Your task to perform on an android device: change text size in settings app Image 0: 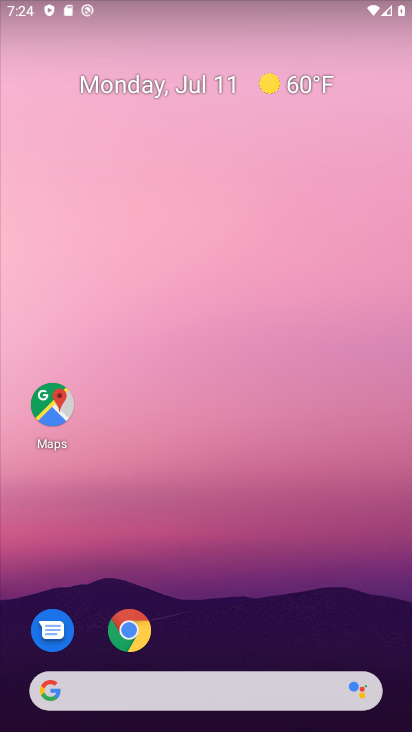
Step 0: drag from (284, 622) to (296, 171)
Your task to perform on an android device: change text size in settings app Image 1: 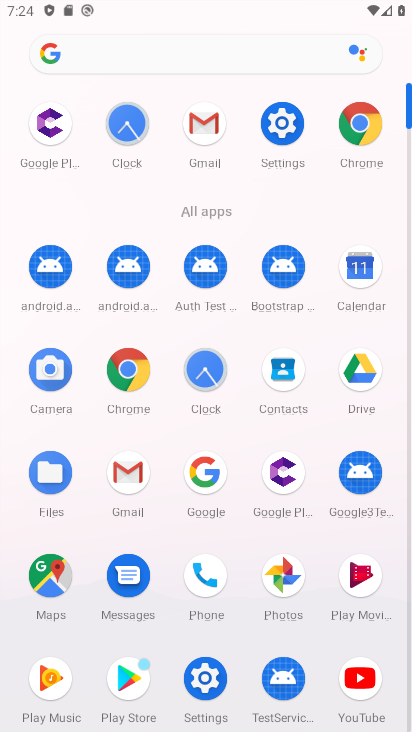
Step 1: click (204, 676)
Your task to perform on an android device: change text size in settings app Image 2: 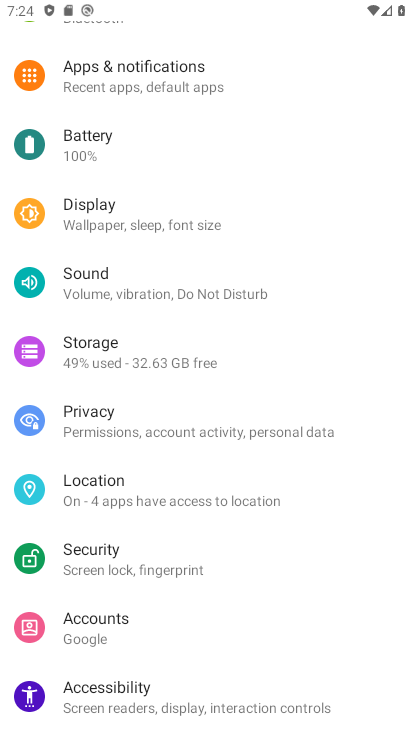
Step 2: click (114, 208)
Your task to perform on an android device: change text size in settings app Image 3: 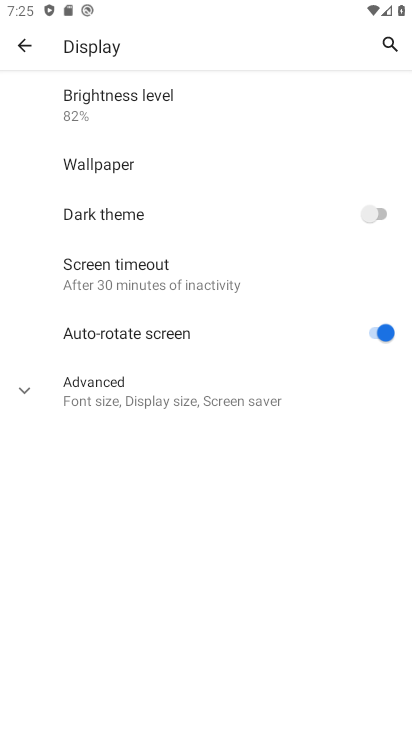
Step 3: click (71, 395)
Your task to perform on an android device: change text size in settings app Image 4: 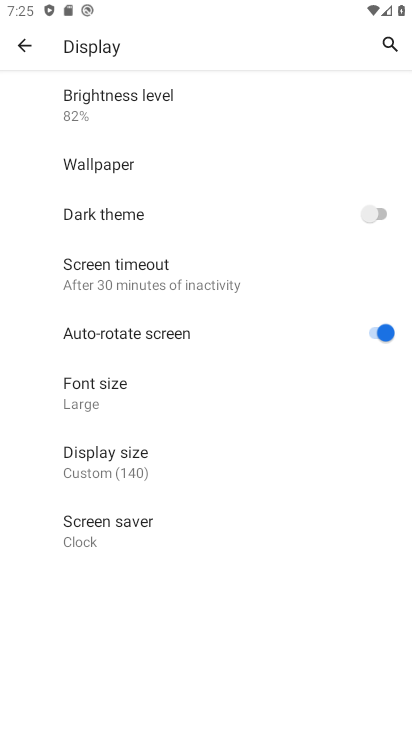
Step 4: click (81, 395)
Your task to perform on an android device: change text size in settings app Image 5: 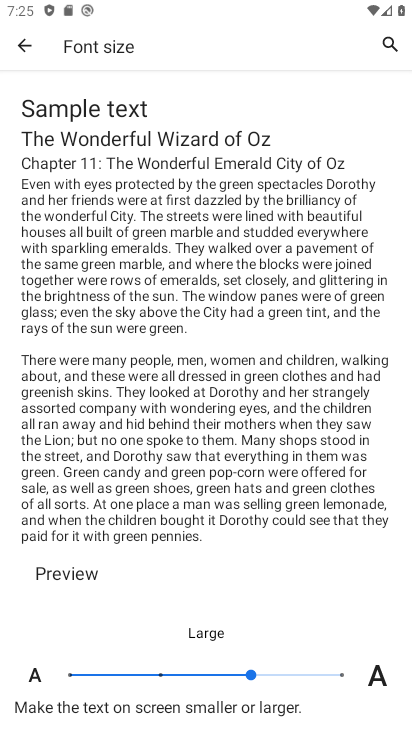
Step 5: click (160, 679)
Your task to perform on an android device: change text size in settings app Image 6: 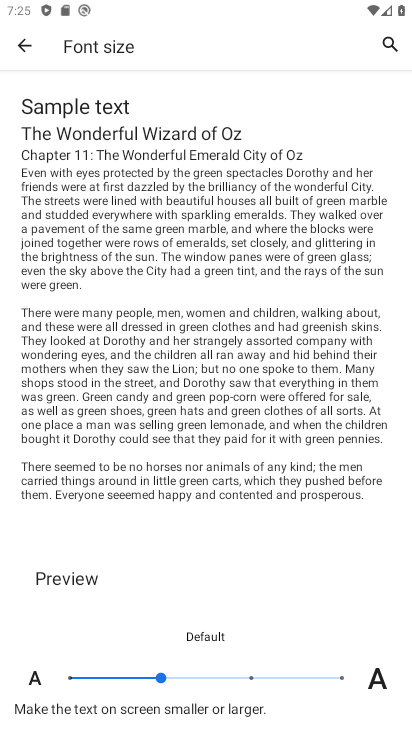
Step 6: task complete